Your task to perform on an android device: add a contact in the contacts app Image 0: 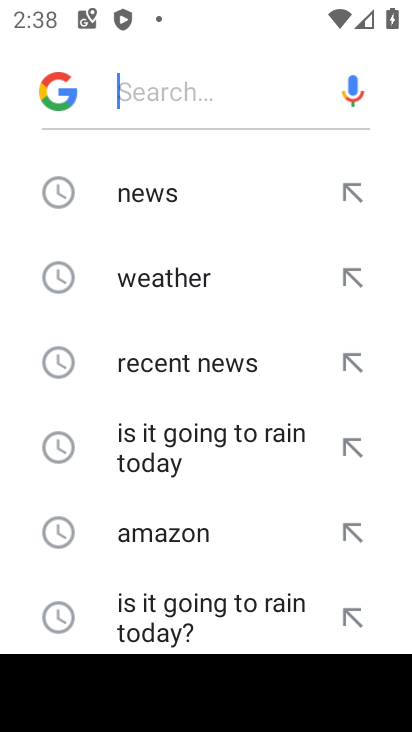
Step 0: press back button
Your task to perform on an android device: add a contact in the contacts app Image 1: 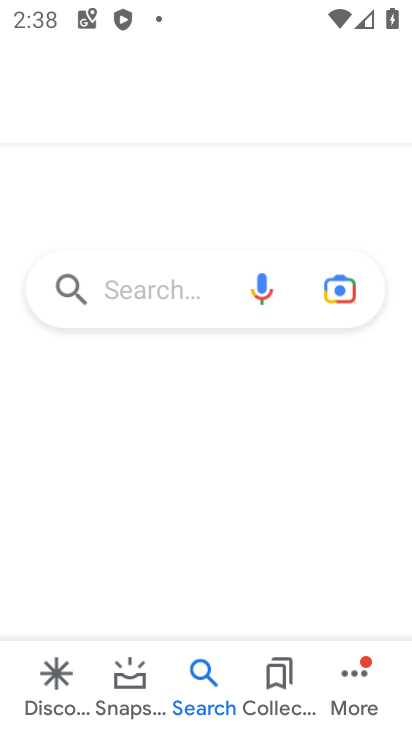
Step 1: press back button
Your task to perform on an android device: add a contact in the contacts app Image 2: 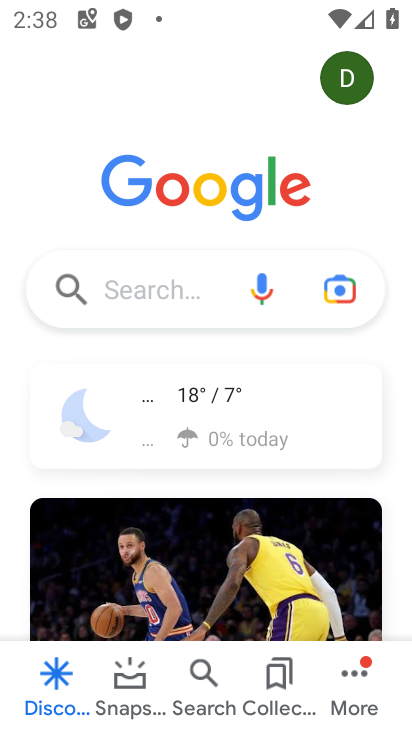
Step 2: press back button
Your task to perform on an android device: add a contact in the contacts app Image 3: 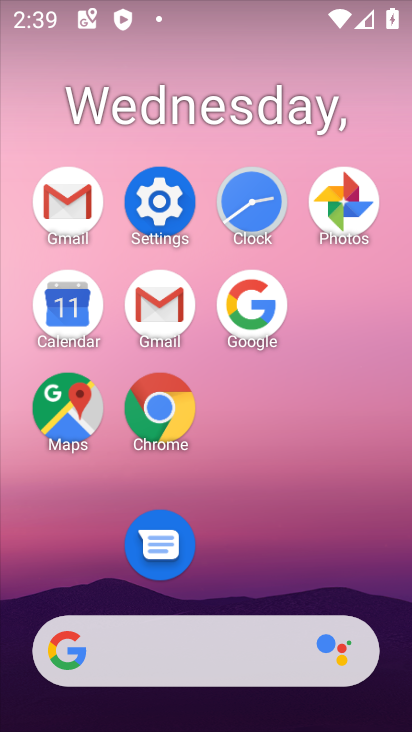
Step 3: drag from (233, 565) to (377, 195)
Your task to perform on an android device: add a contact in the contacts app Image 4: 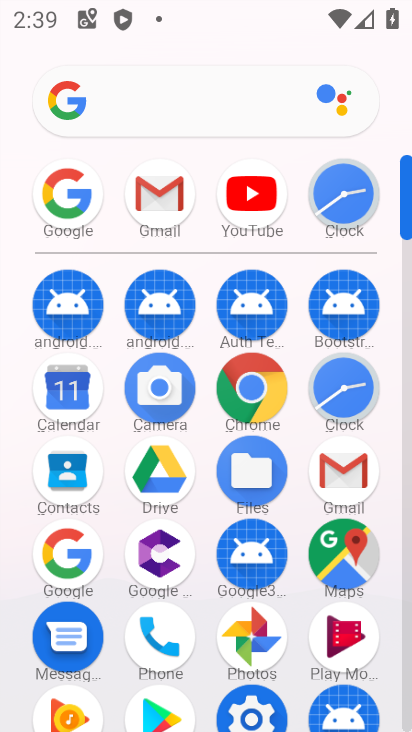
Step 4: click (67, 473)
Your task to perform on an android device: add a contact in the contacts app Image 5: 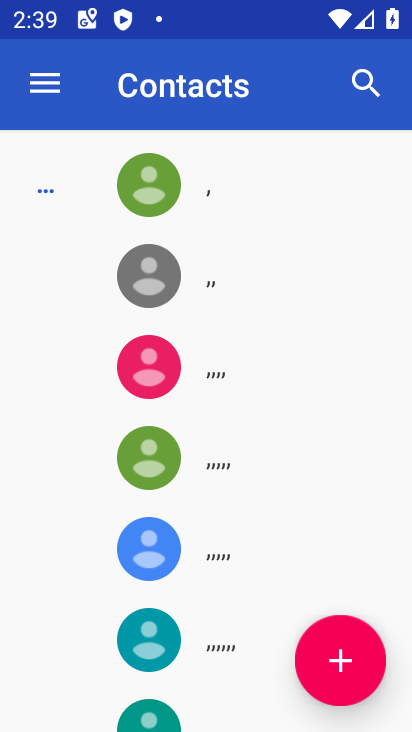
Step 5: task complete